Your task to perform on an android device: see tabs open on other devices in the chrome app Image 0: 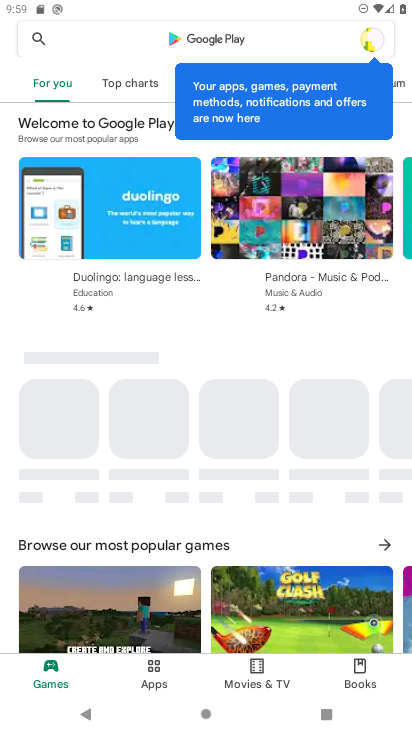
Step 0: press home button
Your task to perform on an android device: see tabs open on other devices in the chrome app Image 1: 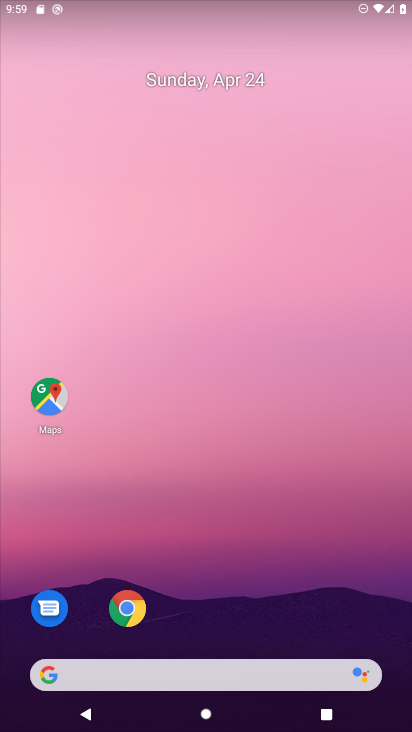
Step 1: drag from (230, 702) to (186, 242)
Your task to perform on an android device: see tabs open on other devices in the chrome app Image 2: 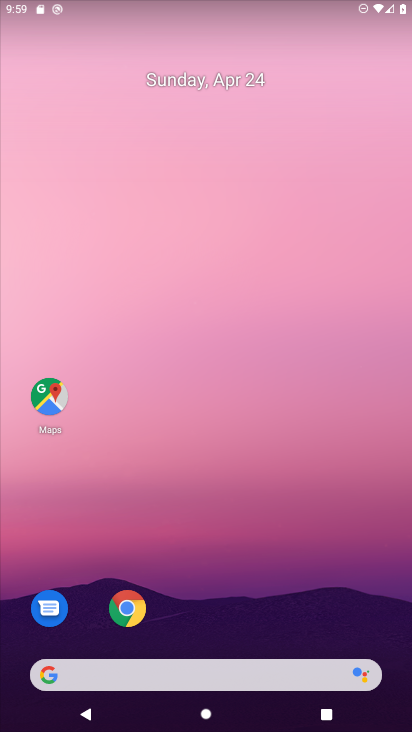
Step 2: drag from (233, 499) to (226, 159)
Your task to perform on an android device: see tabs open on other devices in the chrome app Image 3: 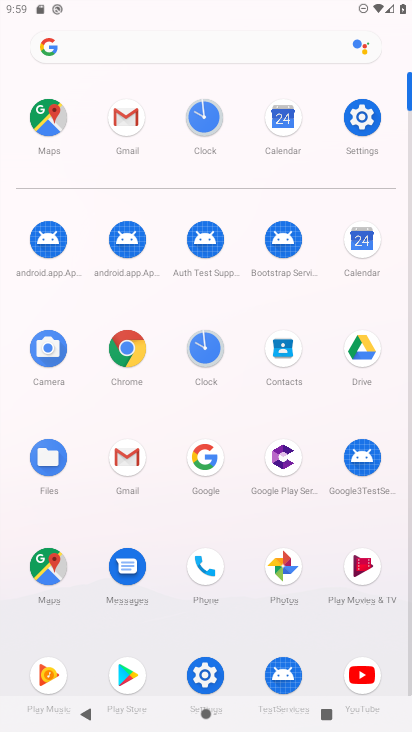
Step 3: click (119, 365)
Your task to perform on an android device: see tabs open on other devices in the chrome app Image 4: 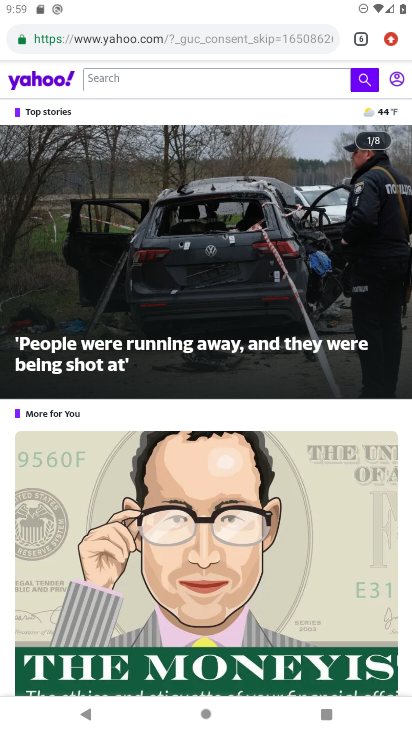
Step 4: click (347, 46)
Your task to perform on an android device: see tabs open on other devices in the chrome app Image 5: 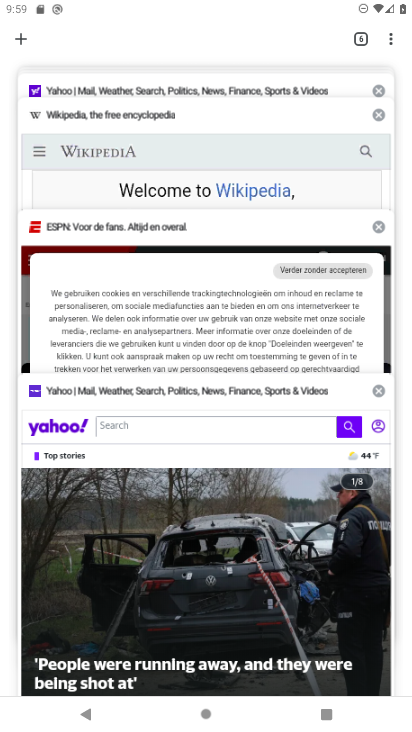
Step 5: task complete